Your task to perform on an android device: turn on sleep mode Image 0: 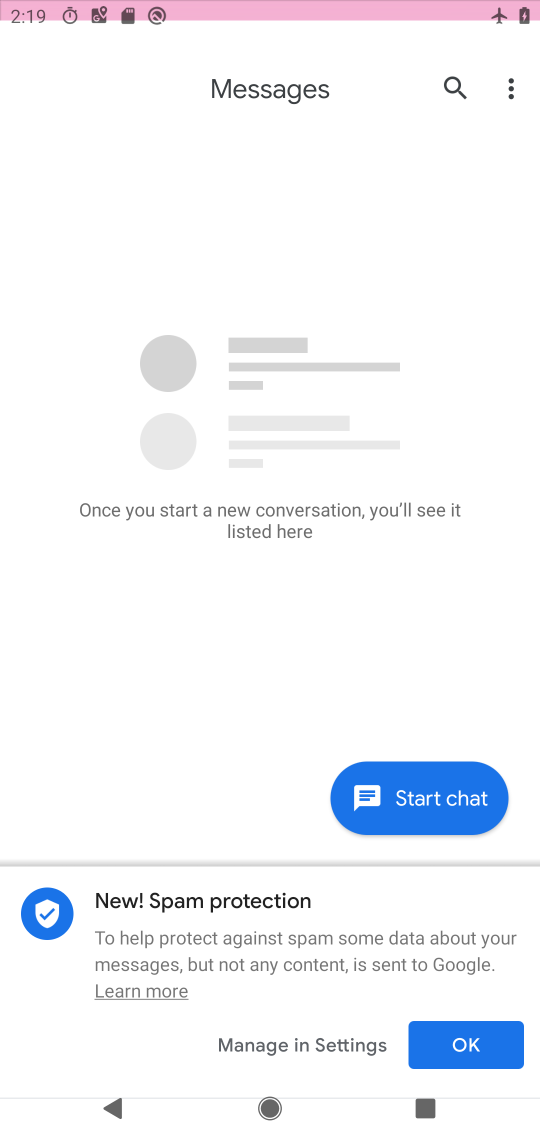
Step 0: press home button
Your task to perform on an android device: turn on sleep mode Image 1: 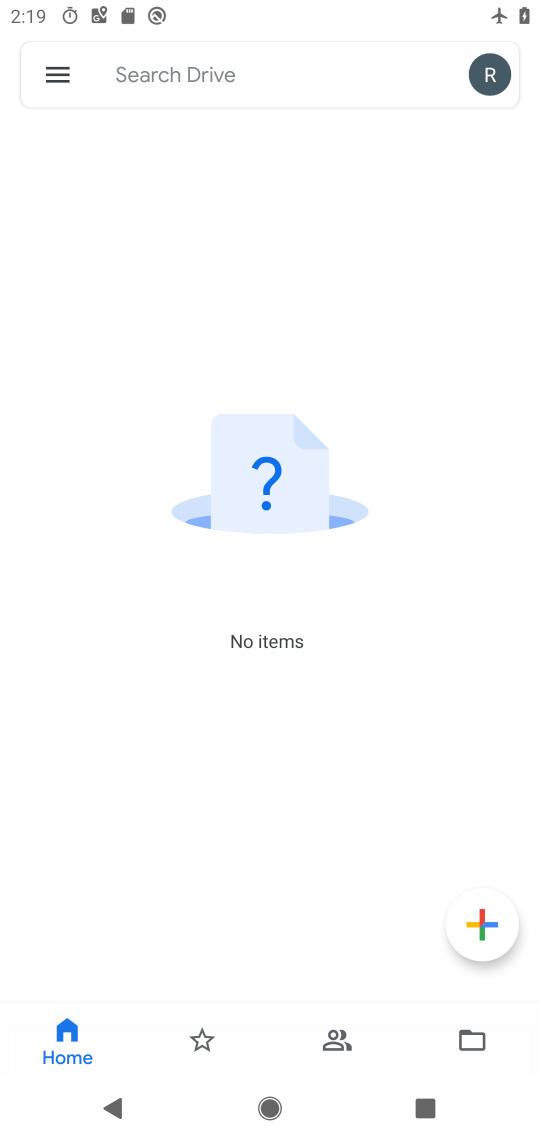
Step 1: press home button
Your task to perform on an android device: turn on sleep mode Image 2: 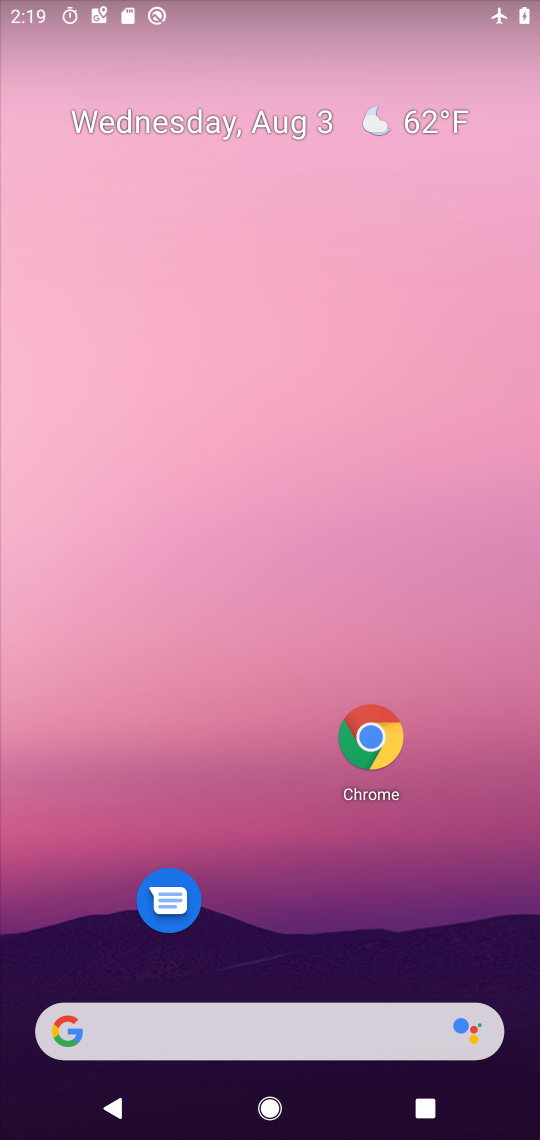
Step 2: drag from (262, 720) to (264, 563)
Your task to perform on an android device: turn on sleep mode Image 3: 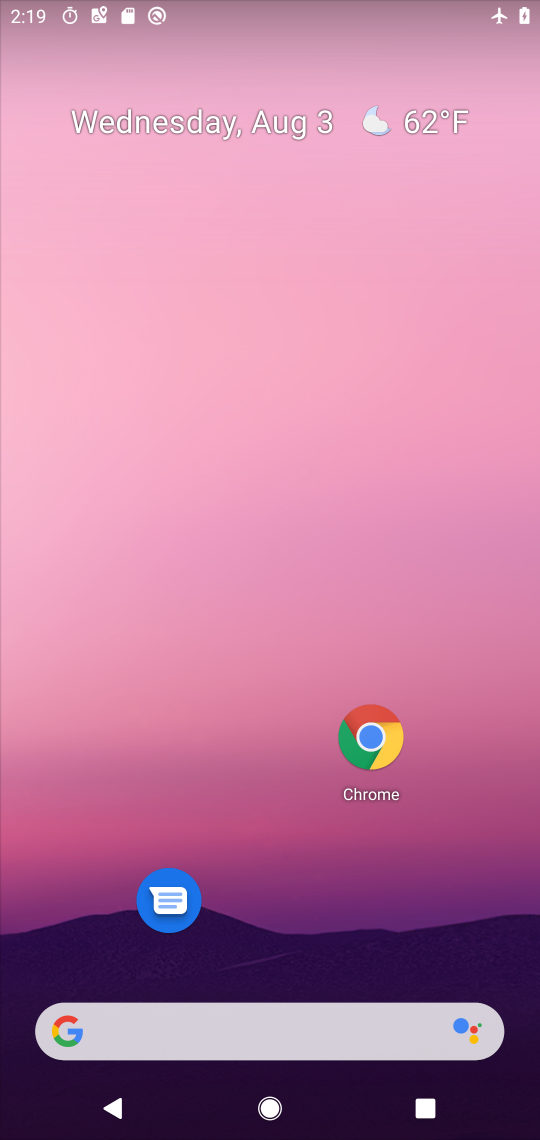
Step 3: drag from (239, 826) to (262, 206)
Your task to perform on an android device: turn on sleep mode Image 4: 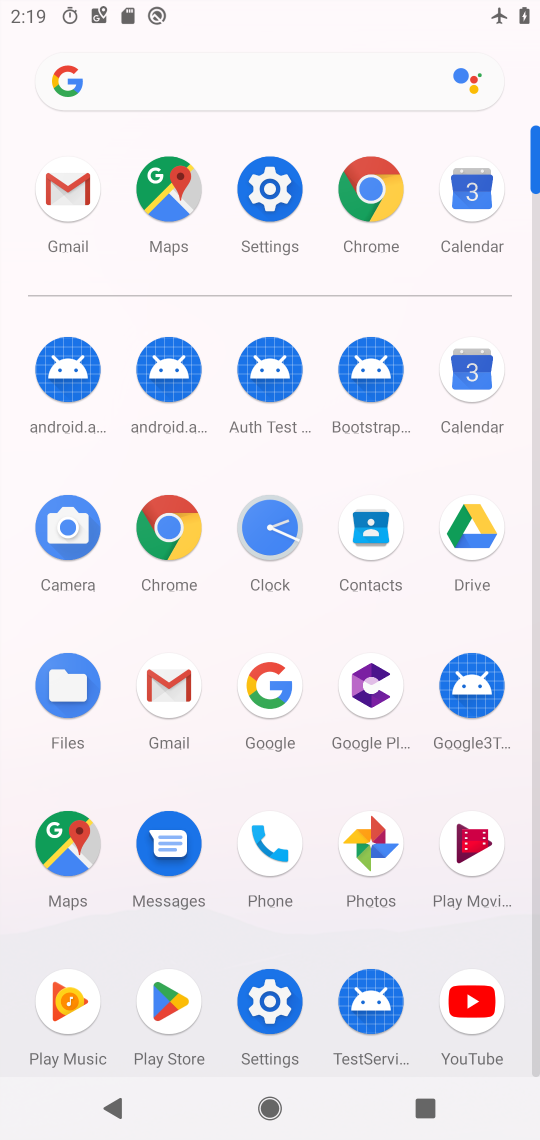
Step 4: click (276, 175)
Your task to perform on an android device: turn on sleep mode Image 5: 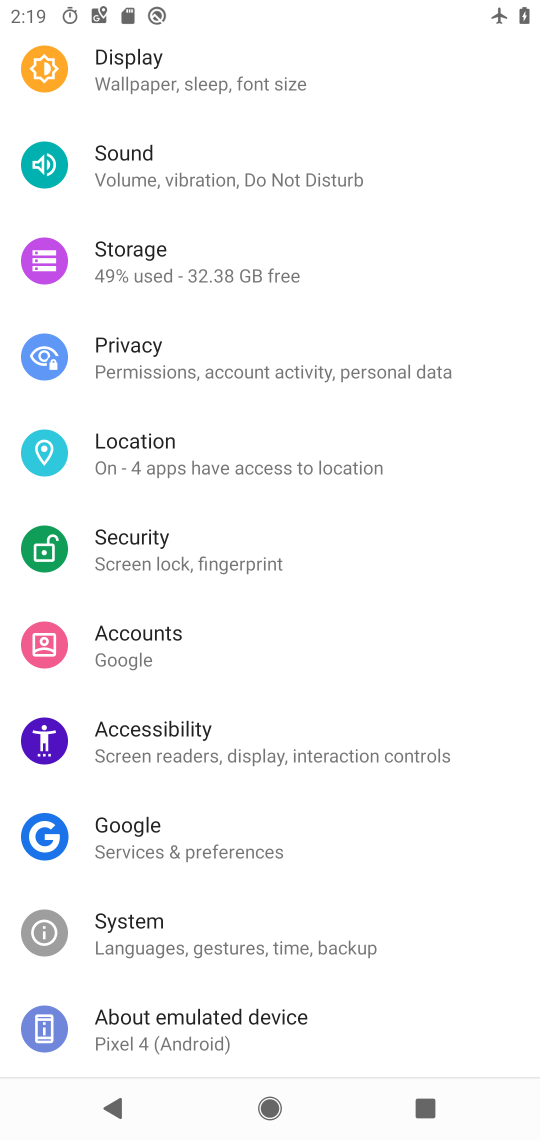
Step 5: click (137, 67)
Your task to perform on an android device: turn on sleep mode Image 6: 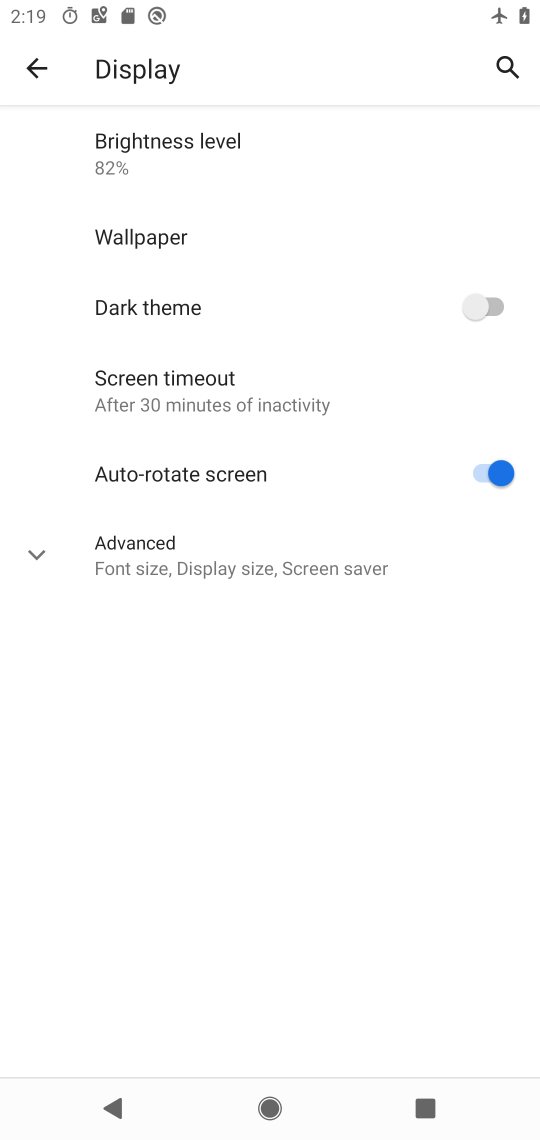
Step 6: click (175, 374)
Your task to perform on an android device: turn on sleep mode Image 7: 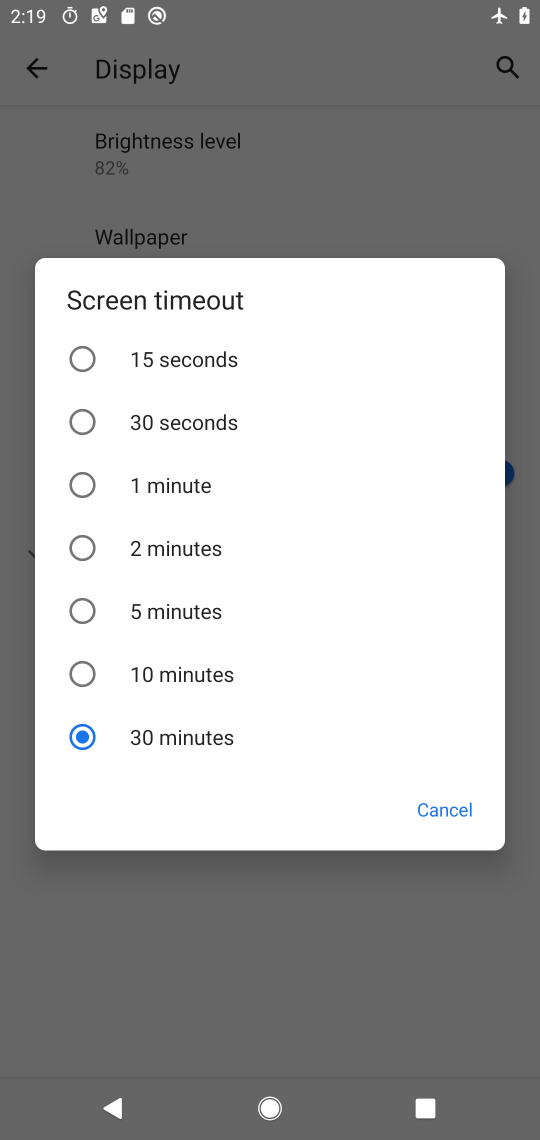
Step 7: task complete